Your task to perform on an android device: Open settings Image 0: 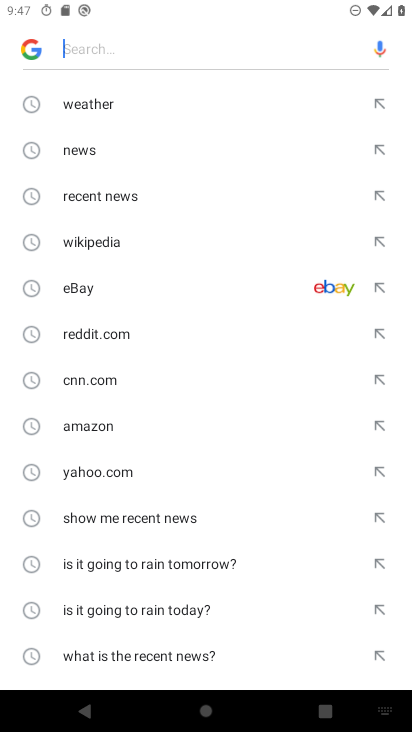
Step 0: press back button
Your task to perform on an android device: Open settings Image 1: 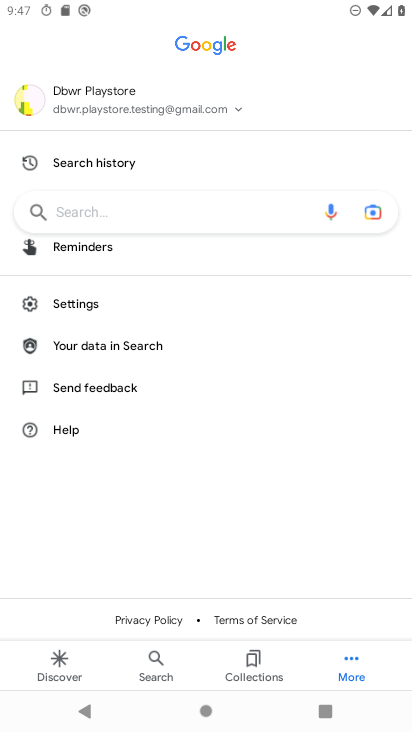
Step 1: press back button
Your task to perform on an android device: Open settings Image 2: 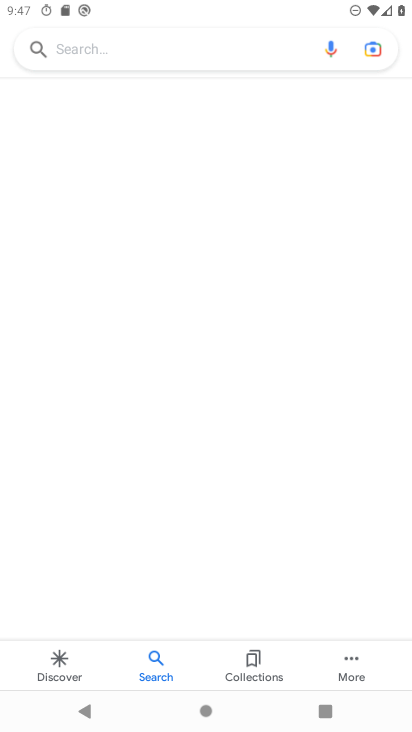
Step 2: press back button
Your task to perform on an android device: Open settings Image 3: 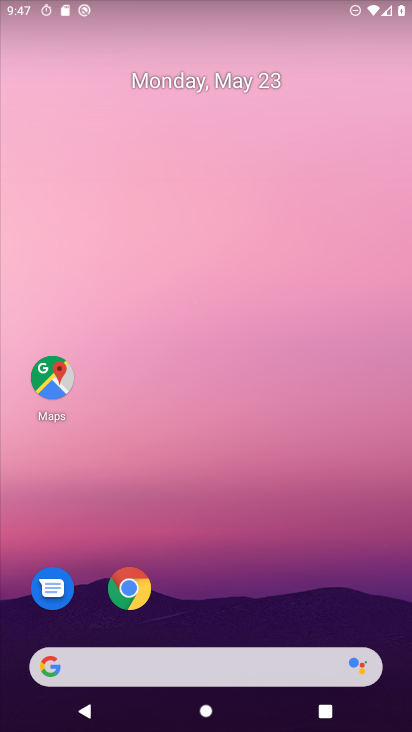
Step 3: drag from (387, 711) to (316, 139)
Your task to perform on an android device: Open settings Image 4: 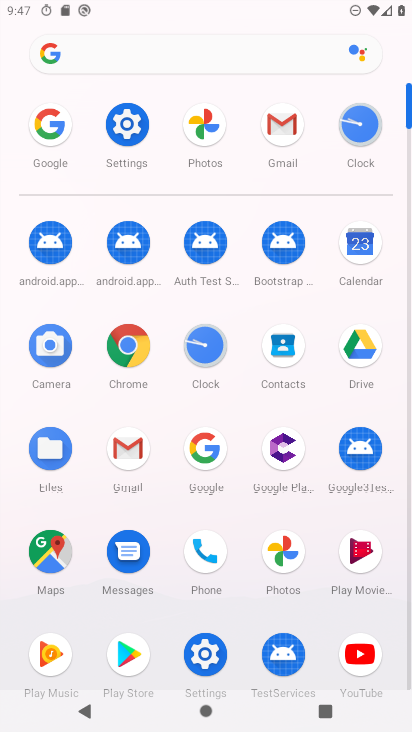
Step 4: click (210, 656)
Your task to perform on an android device: Open settings Image 5: 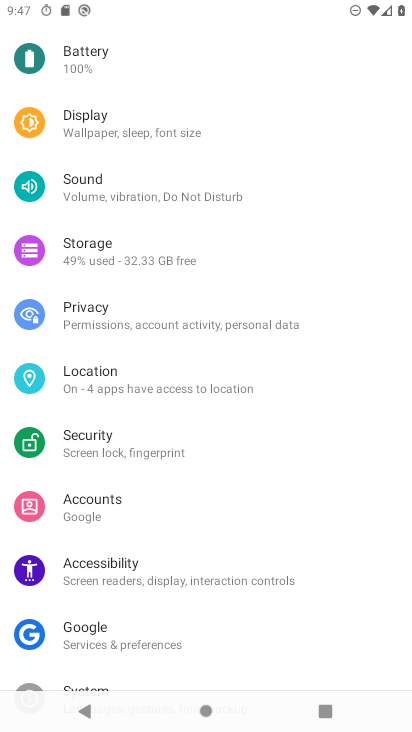
Step 5: task complete